Your task to perform on an android device: add a contact Image 0: 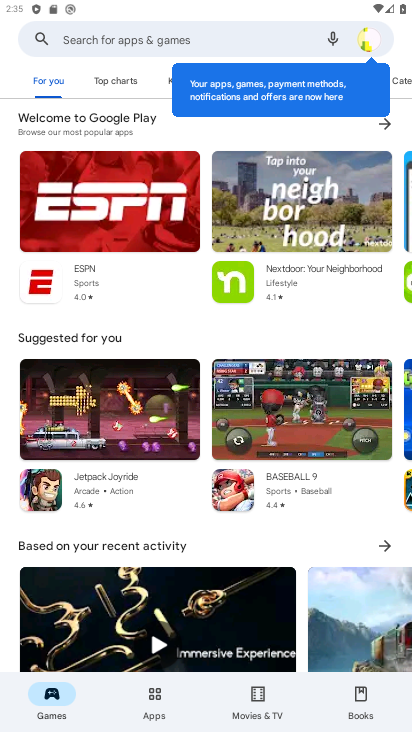
Step 0: press home button
Your task to perform on an android device: add a contact Image 1: 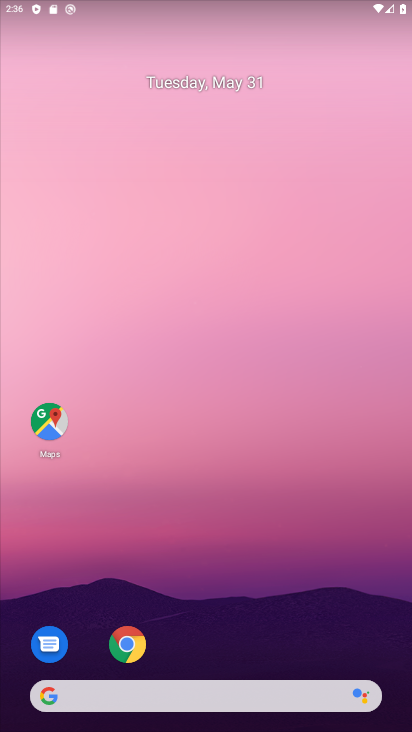
Step 1: drag from (116, 728) to (134, 178)
Your task to perform on an android device: add a contact Image 2: 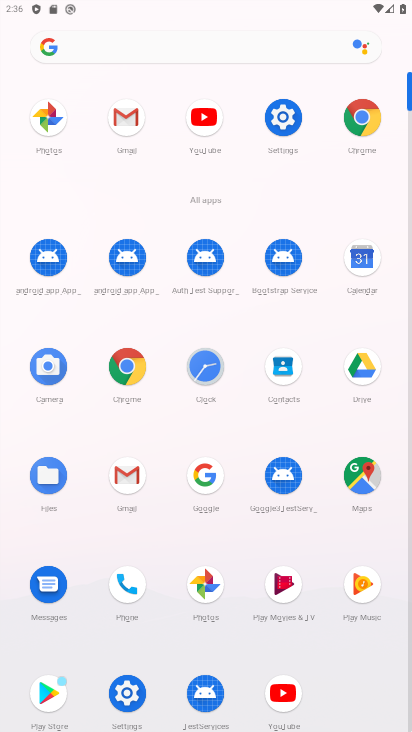
Step 2: click (285, 373)
Your task to perform on an android device: add a contact Image 3: 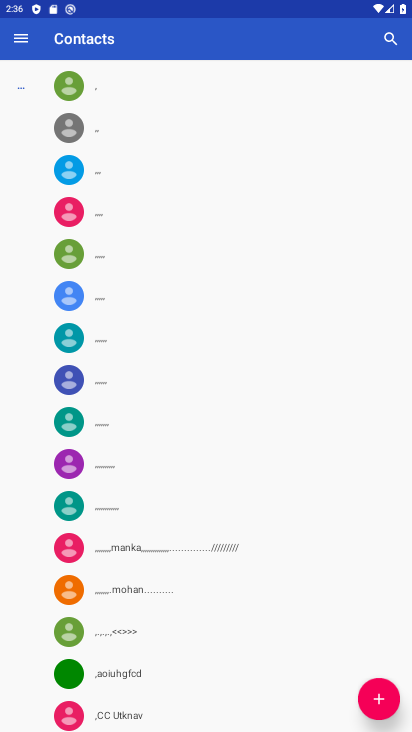
Step 3: click (377, 710)
Your task to perform on an android device: add a contact Image 4: 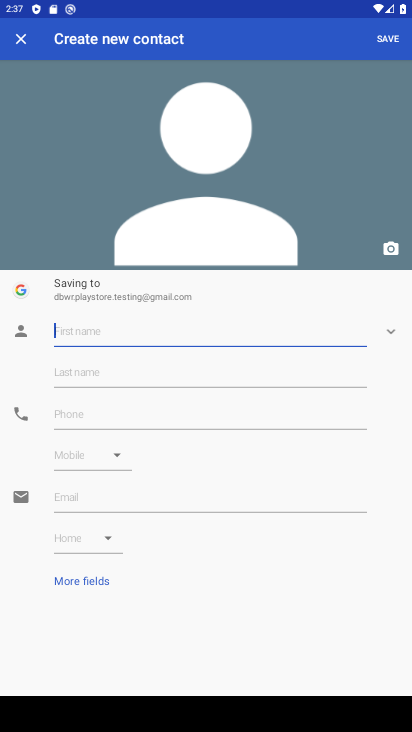
Step 4: click (133, 330)
Your task to perform on an android device: add a contact Image 5: 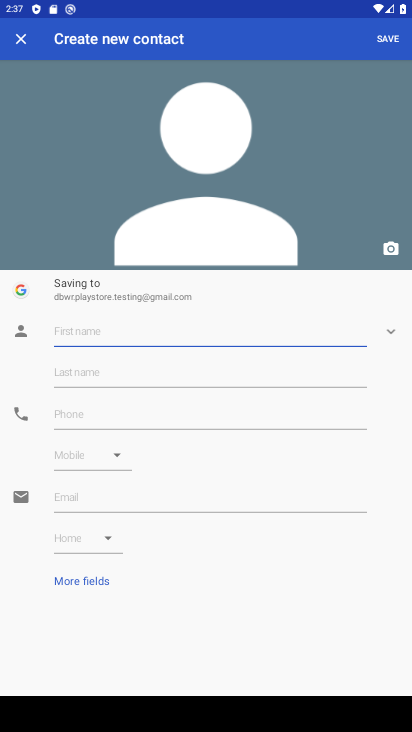
Step 5: type "ygufh"
Your task to perform on an android device: add a contact Image 6: 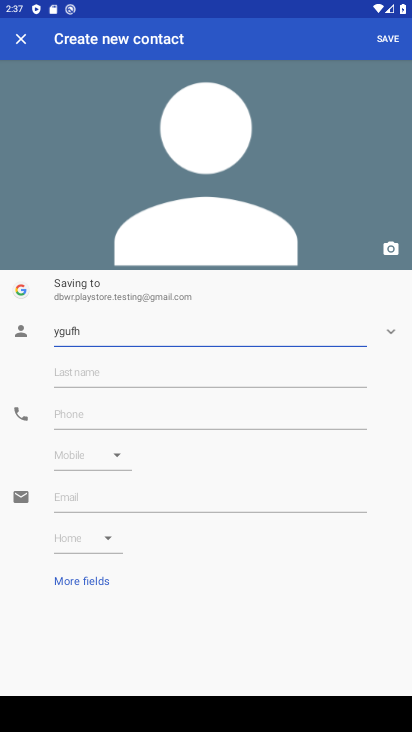
Step 6: click (112, 420)
Your task to perform on an android device: add a contact Image 7: 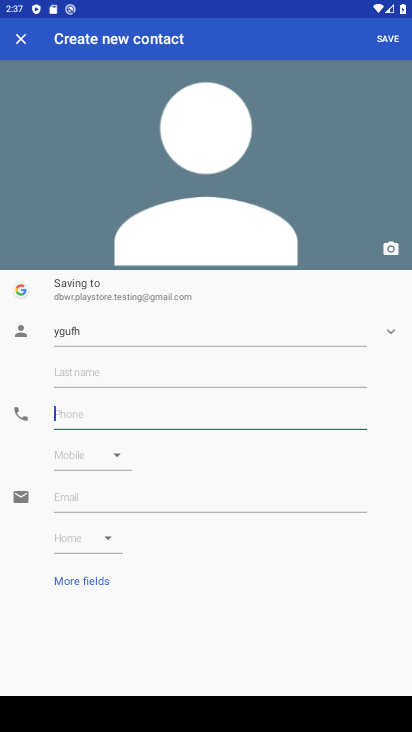
Step 7: type "9817253547"
Your task to perform on an android device: add a contact Image 8: 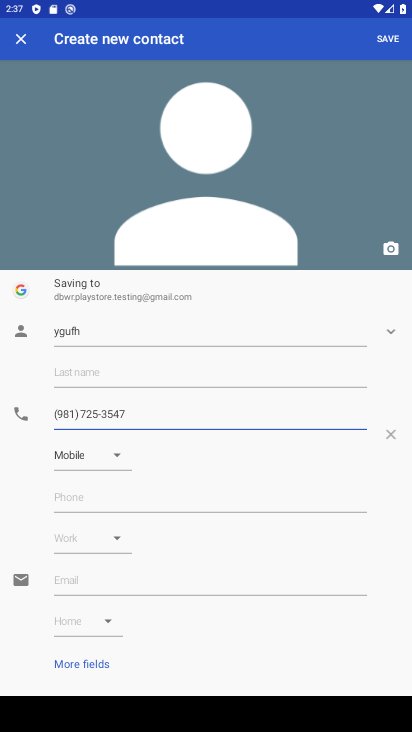
Step 8: click (386, 48)
Your task to perform on an android device: add a contact Image 9: 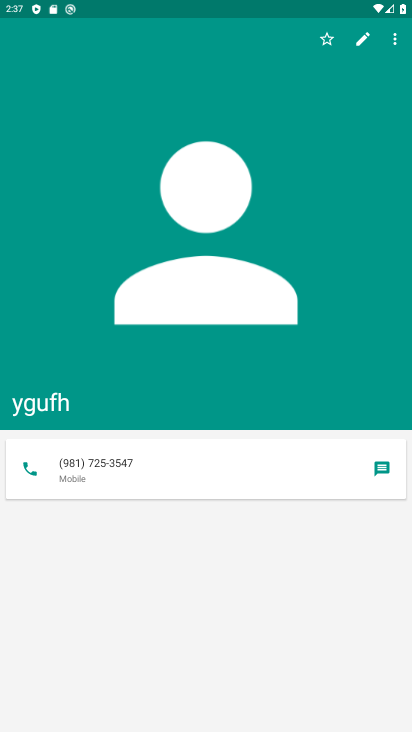
Step 9: task complete